Your task to perform on an android device: Open Amazon Image 0: 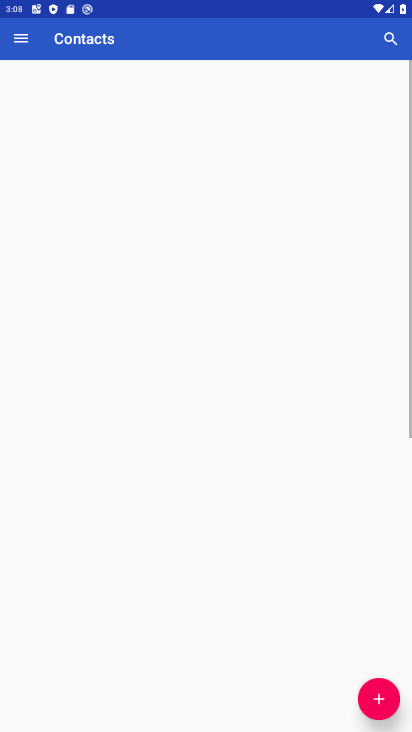
Step 0: click (136, 648)
Your task to perform on an android device: Open Amazon Image 1: 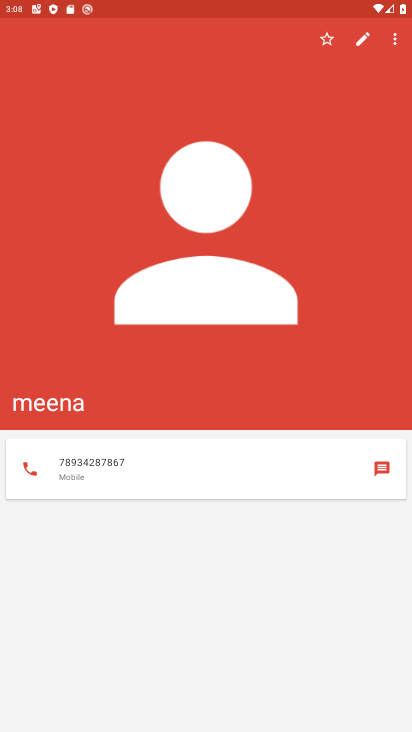
Step 1: press home button
Your task to perform on an android device: Open Amazon Image 2: 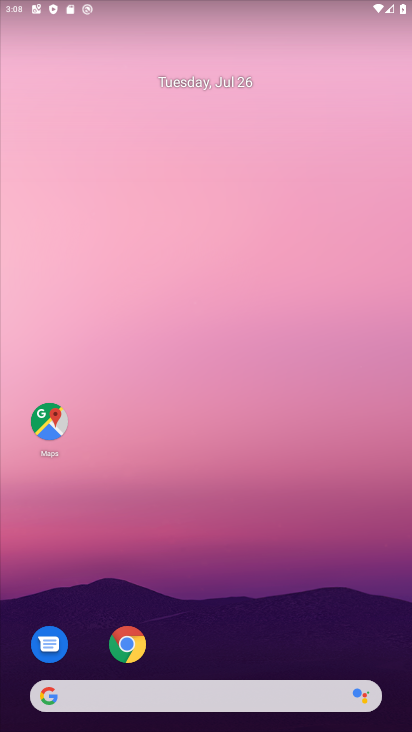
Step 2: drag from (167, 673) to (179, 216)
Your task to perform on an android device: Open Amazon Image 3: 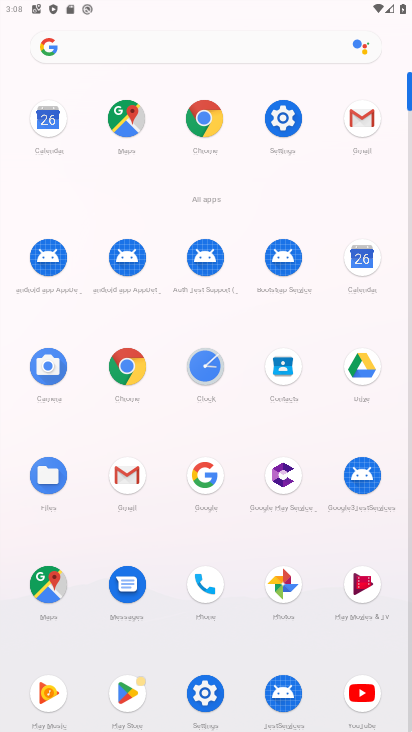
Step 3: click (202, 481)
Your task to perform on an android device: Open Amazon Image 4: 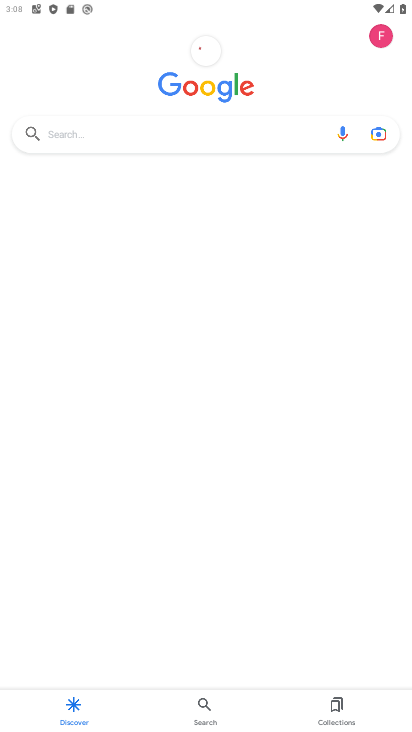
Step 4: click (76, 143)
Your task to perform on an android device: Open Amazon Image 5: 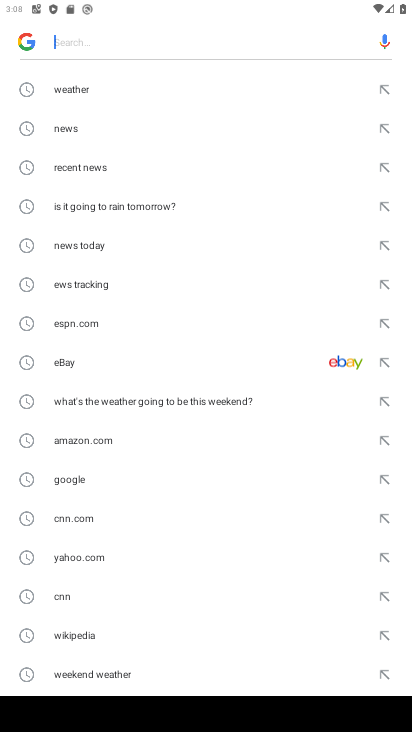
Step 5: click (87, 437)
Your task to perform on an android device: Open Amazon Image 6: 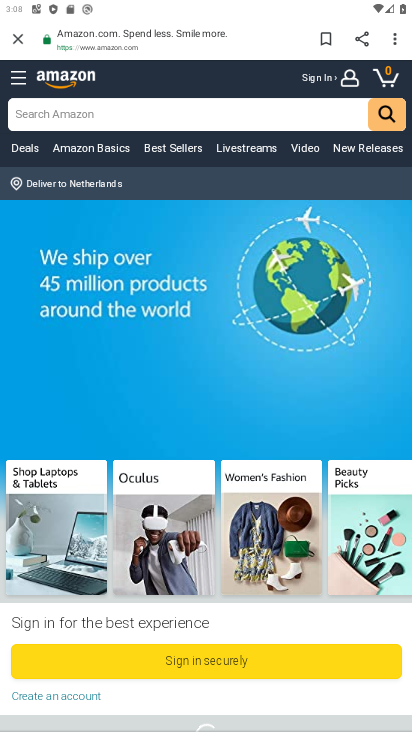
Step 6: task complete